Your task to perform on an android device: Go to privacy settings Image 0: 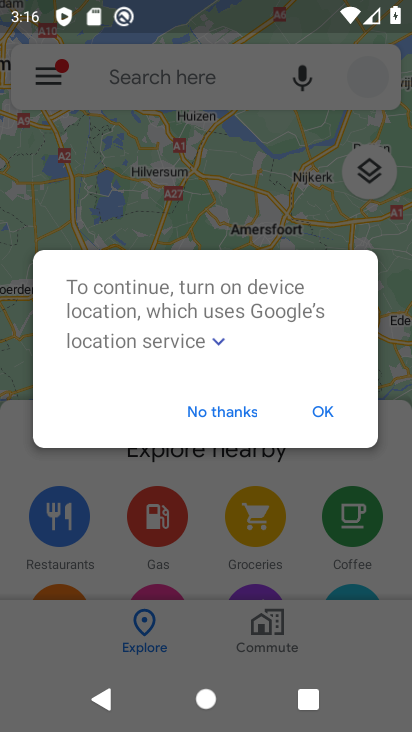
Step 0: click (273, 193)
Your task to perform on an android device: Go to privacy settings Image 1: 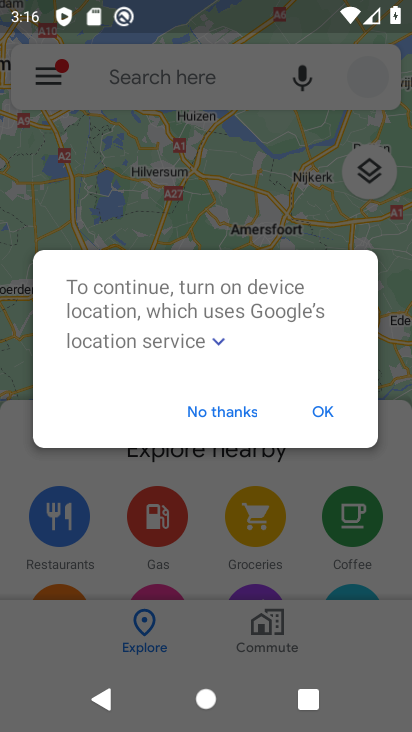
Step 1: click (333, 410)
Your task to perform on an android device: Go to privacy settings Image 2: 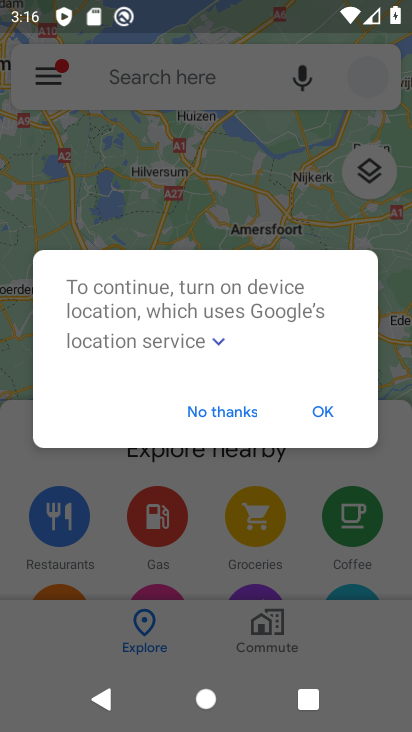
Step 2: press home button
Your task to perform on an android device: Go to privacy settings Image 3: 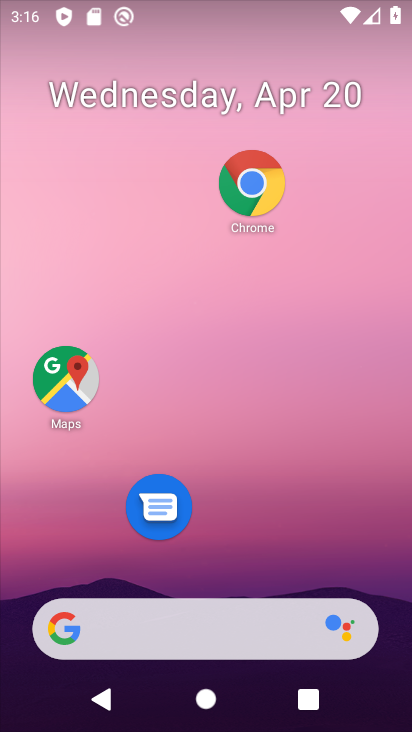
Step 3: click (238, 201)
Your task to perform on an android device: Go to privacy settings Image 4: 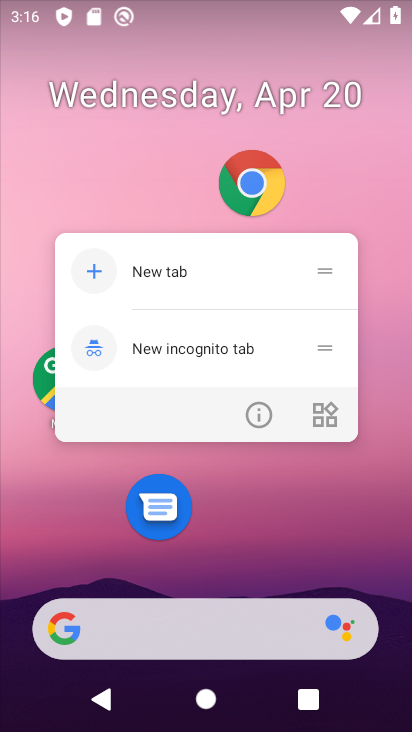
Step 4: click (245, 180)
Your task to perform on an android device: Go to privacy settings Image 5: 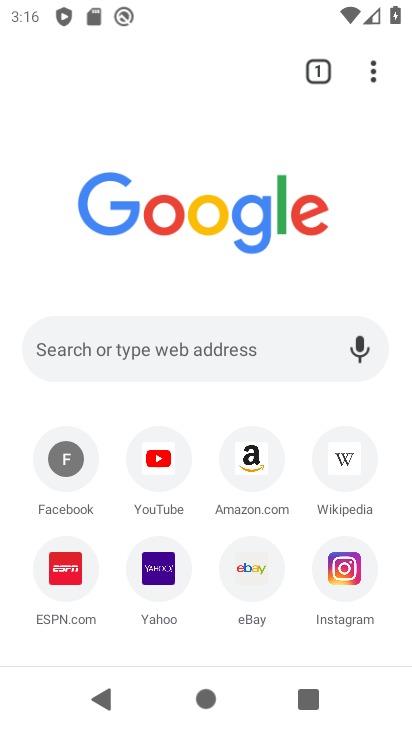
Step 5: drag from (374, 72) to (175, 512)
Your task to perform on an android device: Go to privacy settings Image 6: 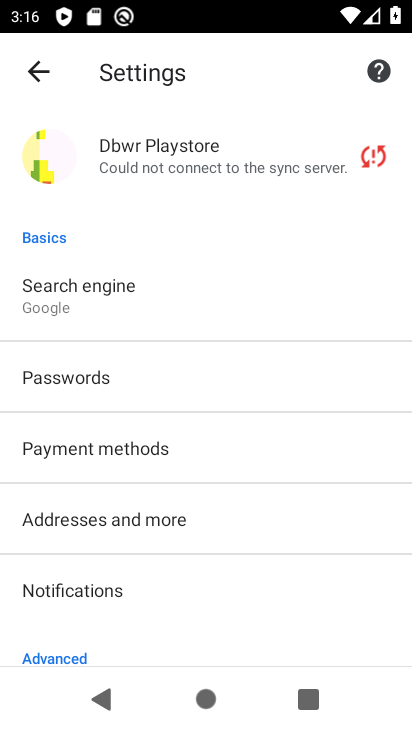
Step 6: drag from (180, 587) to (186, 195)
Your task to perform on an android device: Go to privacy settings Image 7: 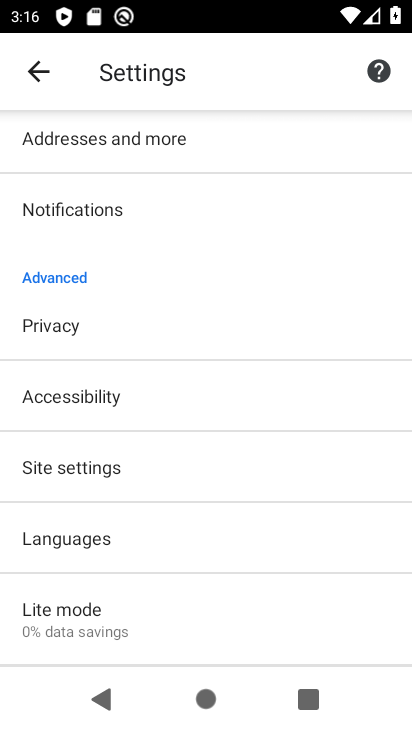
Step 7: click (89, 331)
Your task to perform on an android device: Go to privacy settings Image 8: 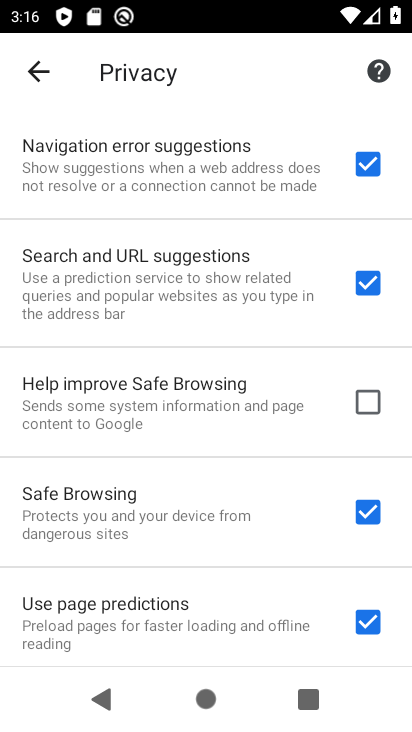
Step 8: task complete